Your task to perform on an android device: set default search engine in the chrome app Image 0: 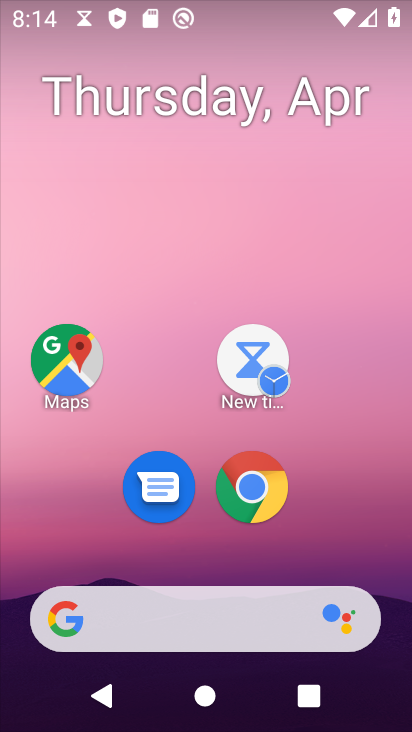
Step 0: click (260, 490)
Your task to perform on an android device: set default search engine in the chrome app Image 1: 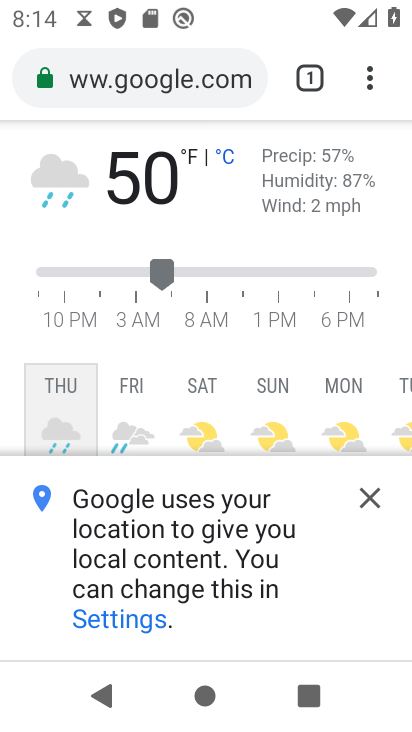
Step 1: click (370, 77)
Your task to perform on an android device: set default search engine in the chrome app Image 2: 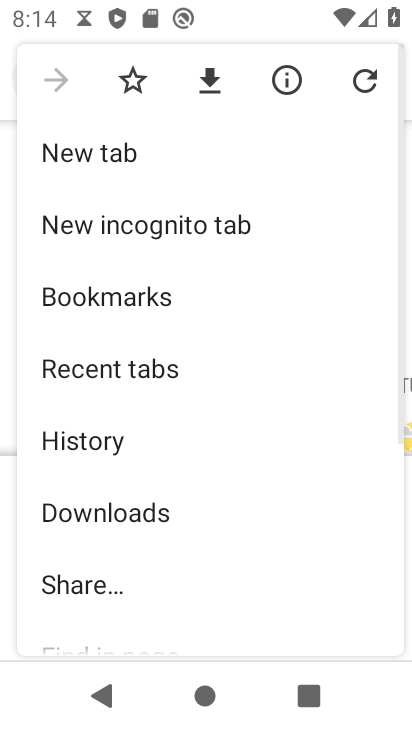
Step 2: drag from (176, 603) to (185, 201)
Your task to perform on an android device: set default search engine in the chrome app Image 3: 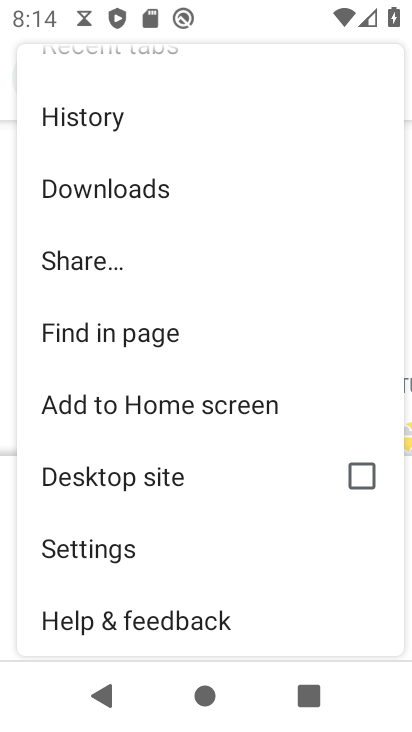
Step 3: click (108, 548)
Your task to perform on an android device: set default search engine in the chrome app Image 4: 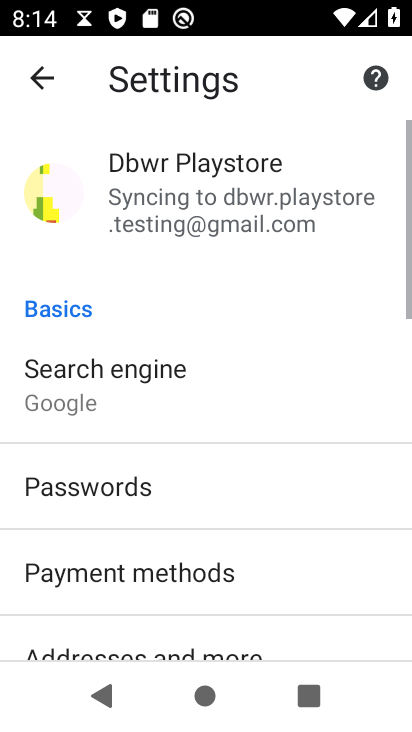
Step 4: click (108, 385)
Your task to perform on an android device: set default search engine in the chrome app Image 5: 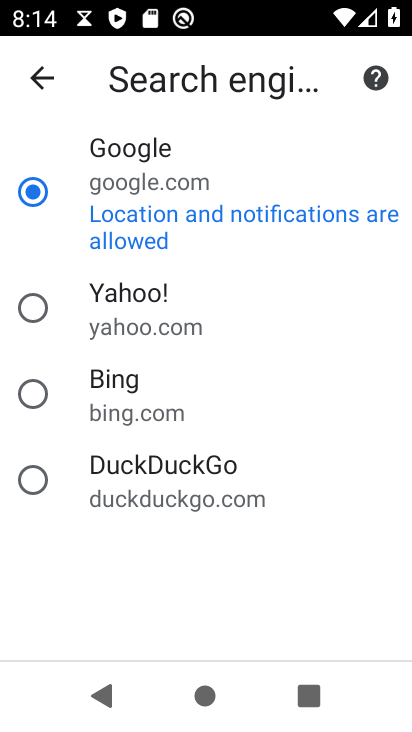
Step 5: click (30, 194)
Your task to perform on an android device: set default search engine in the chrome app Image 6: 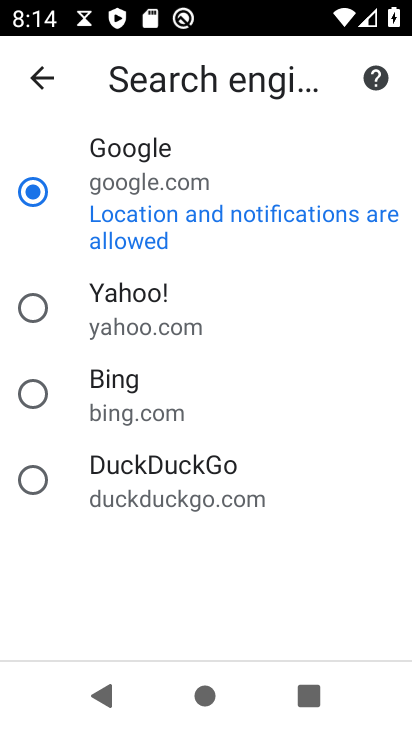
Step 6: task complete